Your task to perform on an android device: Open settings on Google Maps Image 0: 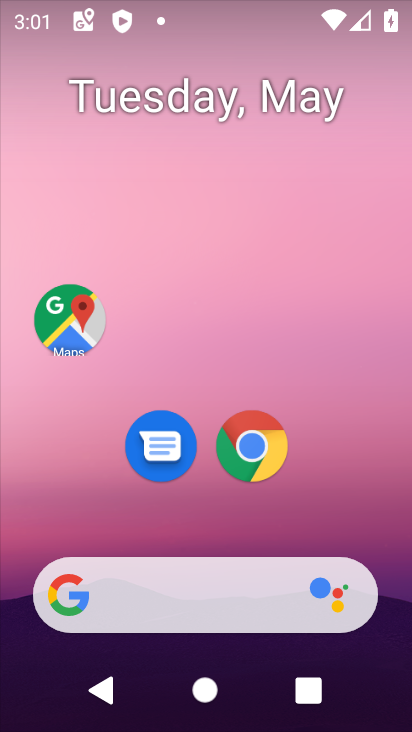
Step 0: drag from (132, 544) to (231, 165)
Your task to perform on an android device: Open settings on Google Maps Image 1: 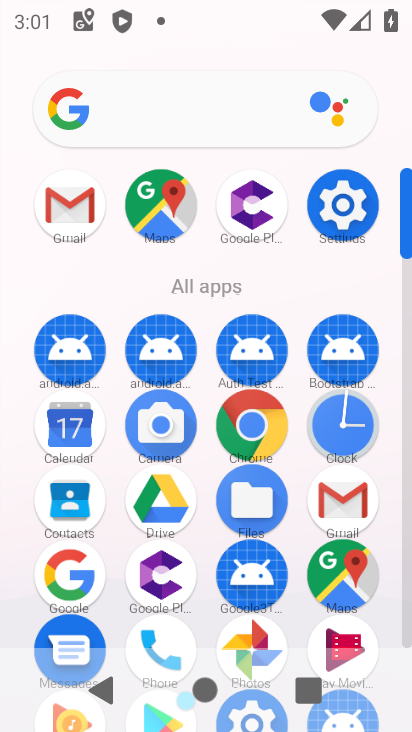
Step 1: click (354, 575)
Your task to perform on an android device: Open settings on Google Maps Image 2: 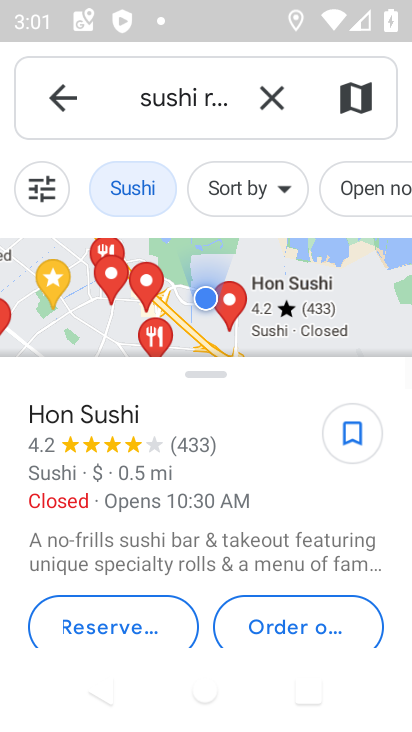
Step 2: click (60, 103)
Your task to perform on an android device: Open settings on Google Maps Image 3: 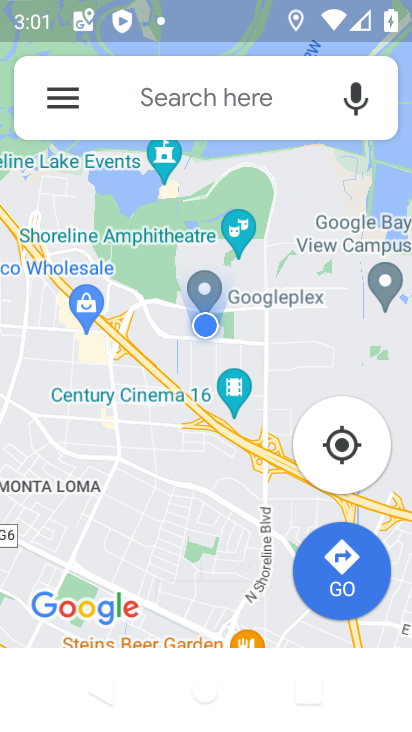
Step 3: click (62, 106)
Your task to perform on an android device: Open settings on Google Maps Image 4: 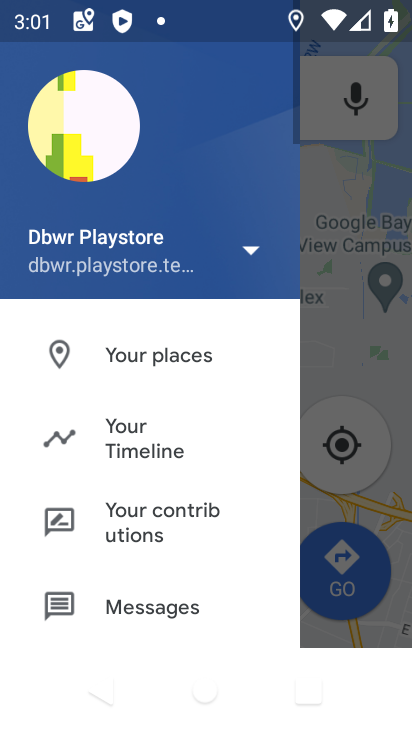
Step 4: drag from (140, 562) to (235, 159)
Your task to perform on an android device: Open settings on Google Maps Image 5: 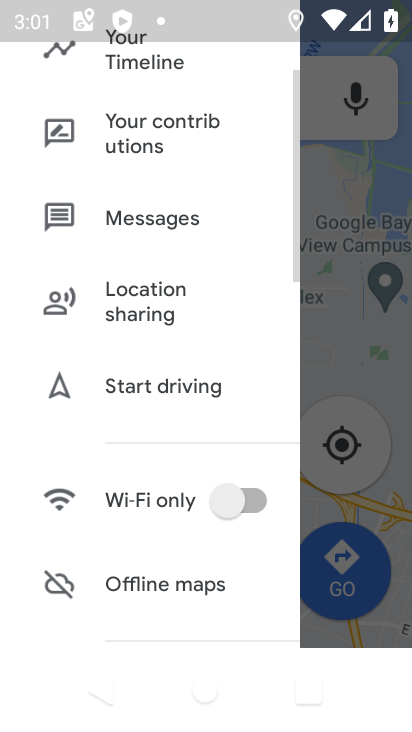
Step 5: drag from (141, 539) to (220, 250)
Your task to perform on an android device: Open settings on Google Maps Image 6: 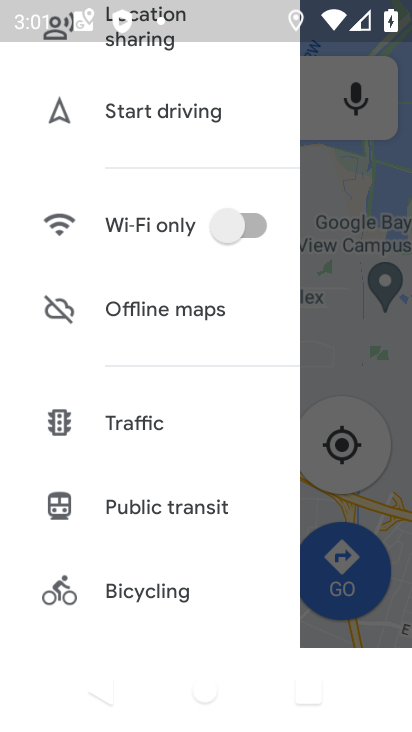
Step 6: drag from (148, 581) to (203, 250)
Your task to perform on an android device: Open settings on Google Maps Image 7: 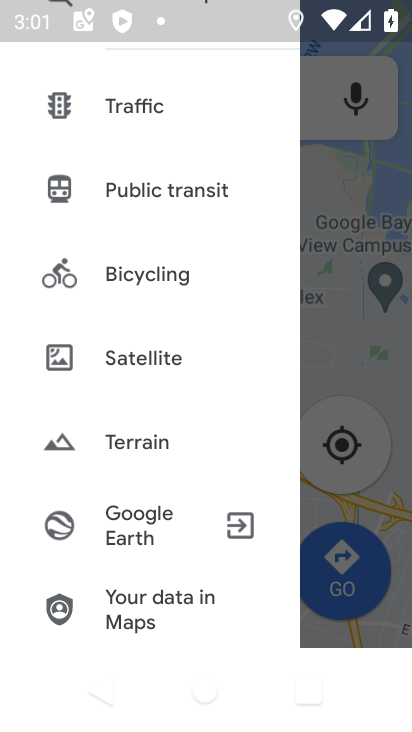
Step 7: drag from (130, 578) to (202, 203)
Your task to perform on an android device: Open settings on Google Maps Image 8: 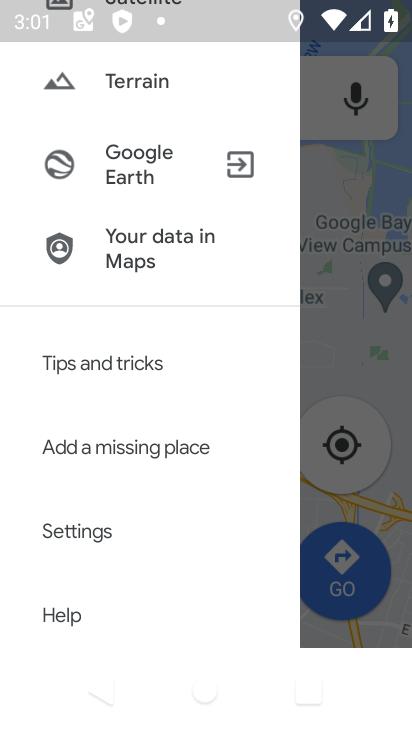
Step 8: click (102, 549)
Your task to perform on an android device: Open settings on Google Maps Image 9: 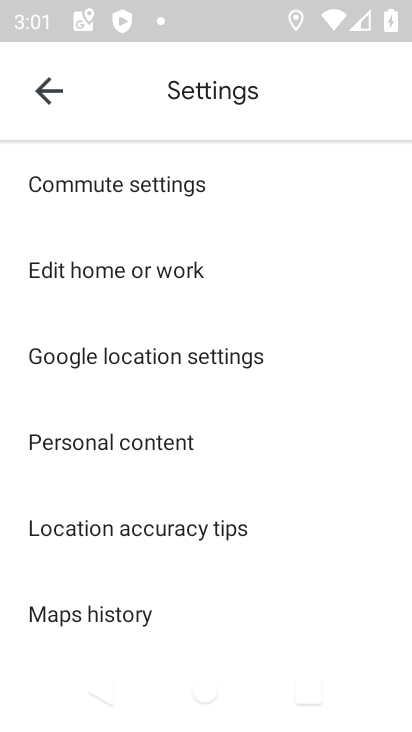
Step 9: task complete